Your task to perform on an android device: Open the stopwatch Image 0: 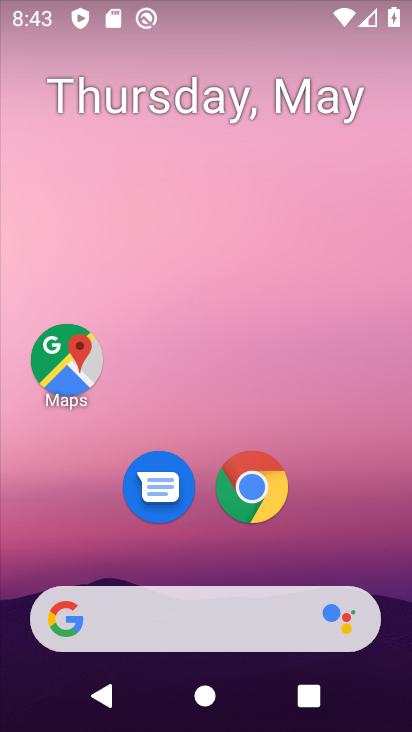
Step 0: drag from (310, 573) to (287, 38)
Your task to perform on an android device: Open the stopwatch Image 1: 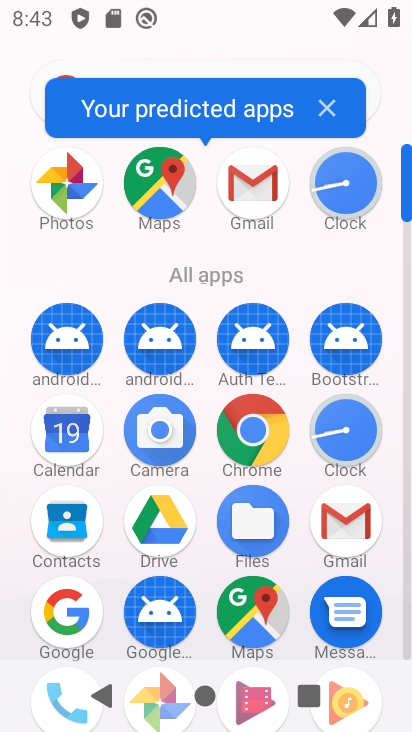
Step 1: drag from (214, 632) to (166, 135)
Your task to perform on an android device: Open the stopwatch Image 2: 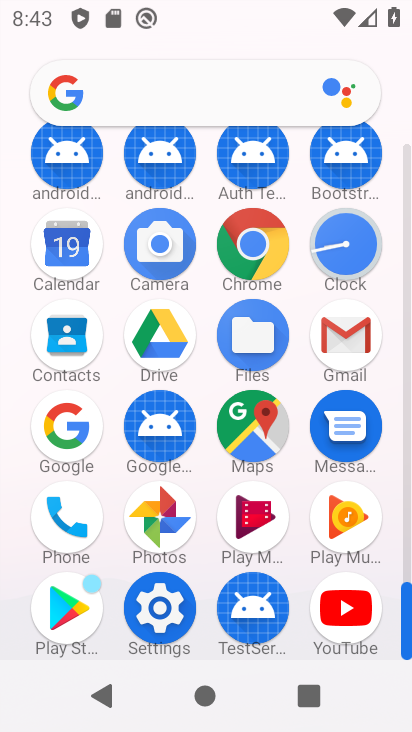
Step 2: click (345, 231)
Your task to perform on an android device: Open the stopwatch Image 3: 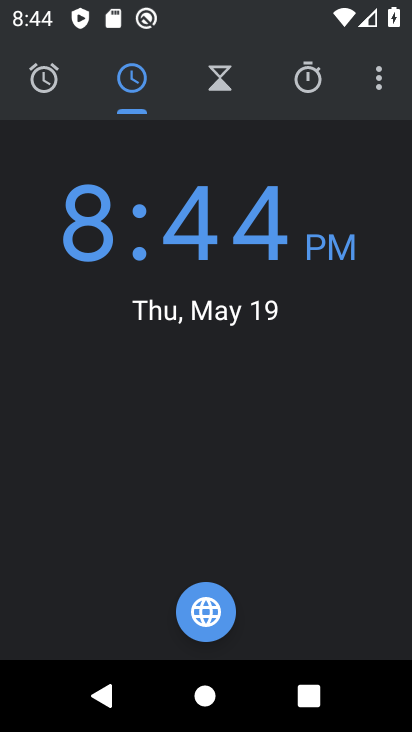
Step 3: click (304, 95)
Your task to perform on an android device: Open the stopwatch Image 4: 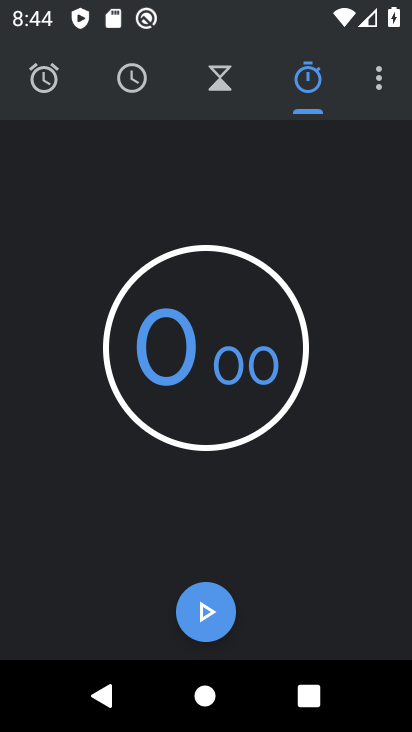
Step 4: click (191, 621)
Your task to perform on an android device: Open the stopwatch Image 5: 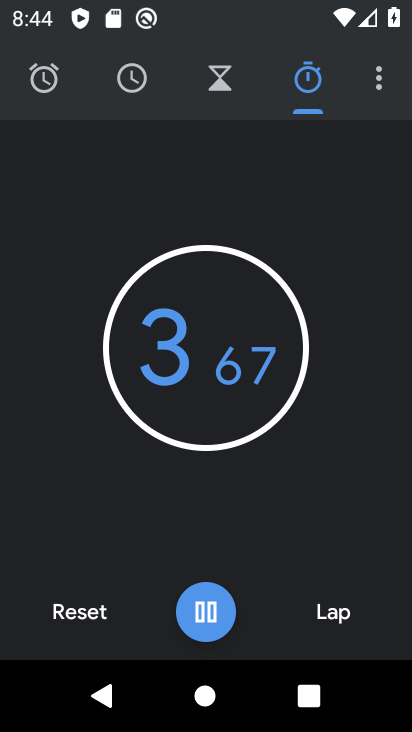
Step 5: task complete